Your task to perform on an android device: Go to wifi settings Image 0: 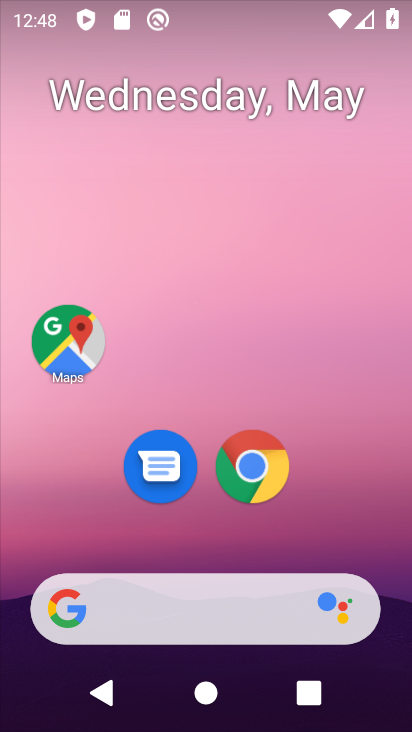
Step 0: drag from (191, 521) to (198, 52)
Your task to perform on an android device: Go to wifi settings Image 1: 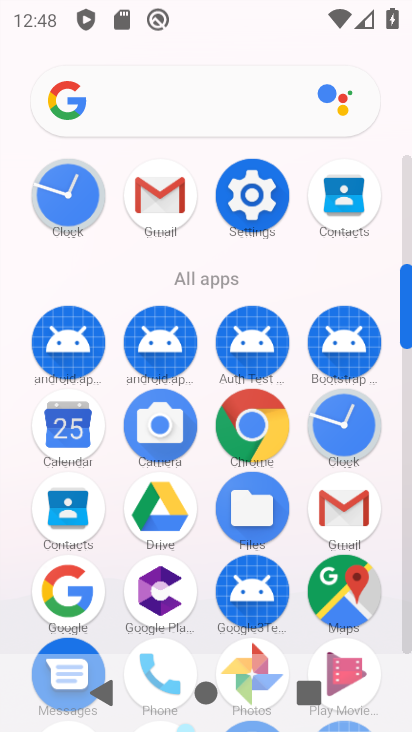
Step 1: click (254, 193)
Your task to perform on an android device: Go to wifi settings Image 2: 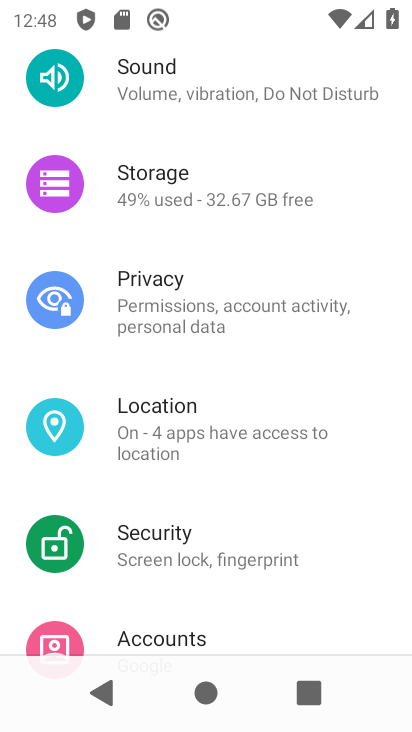
Step 2: drag from (257, 267) to (312, 600)
Your task to perform on an android device: Go to wifi settings Image 3: 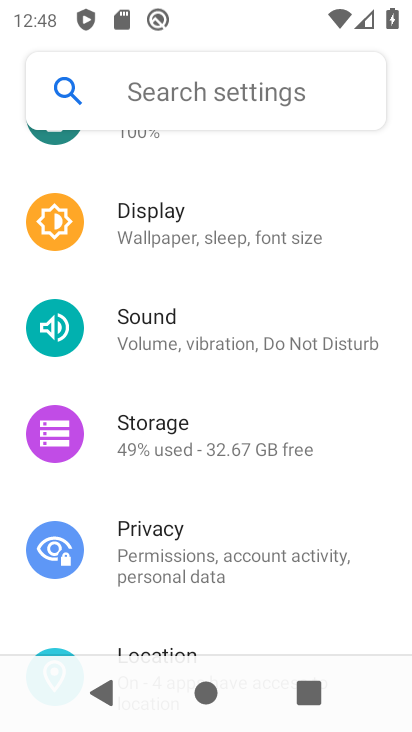
Step 3: drag from (177, 223) to (276, 659)
Your task to perform on an android device: Go to wifi settings Image 4: 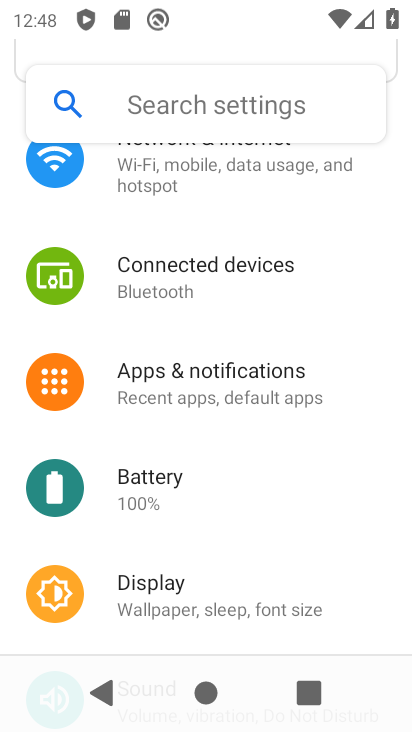
Step 4: drag from (197, 187) to (197, 361)
Your task to perform on an android device: Go to wifi settings Image 5: 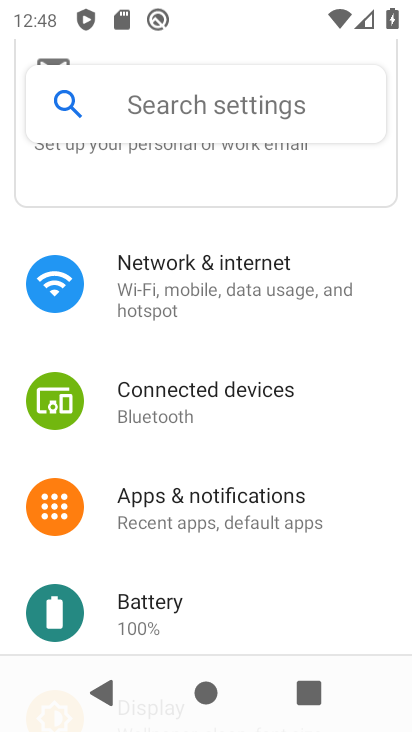
Step 5: click (187, 283)
Your task to perform on an android device: Go to wifi settings Image 6: 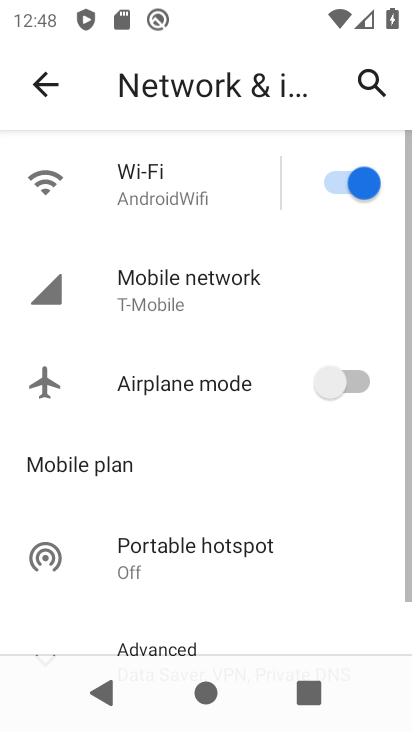
Step 6: click (154, 182)
Your task to perform on an android device: Go to wifi settings Image 7: 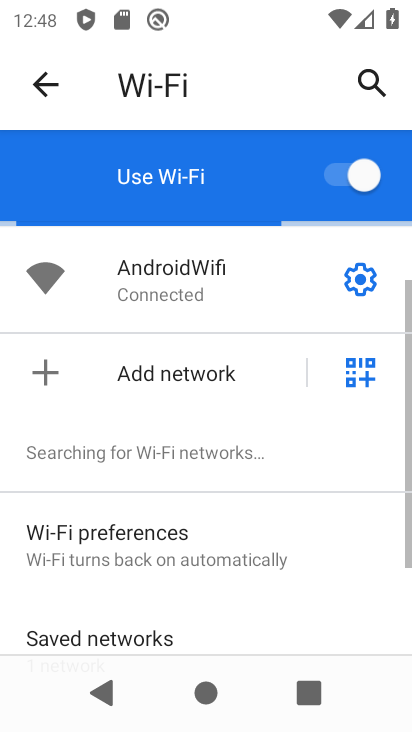
Step 7: click (249, 287)
Your task to perform on an android device: Go to wifi settings Image 8: 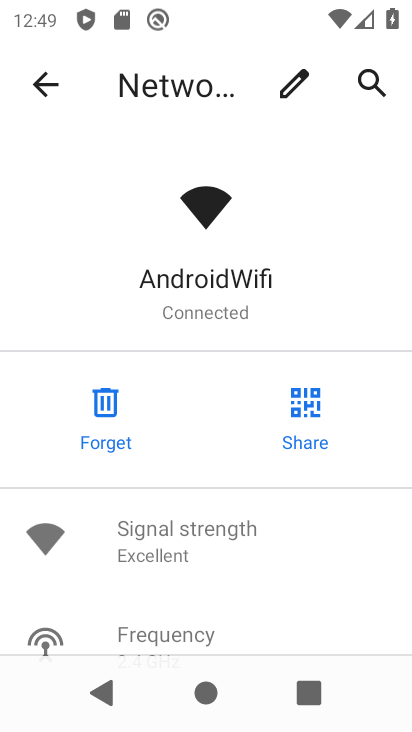
Step 8: task complete